Your task to perform on an android device: turn on translation in the chrome app Image 0: 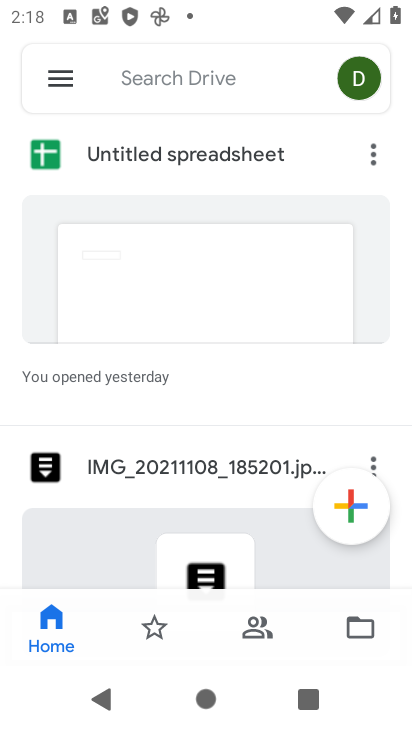
Step 0: press home button
Your task to perform on an android device: turn on translation in the chrome app Image 1: 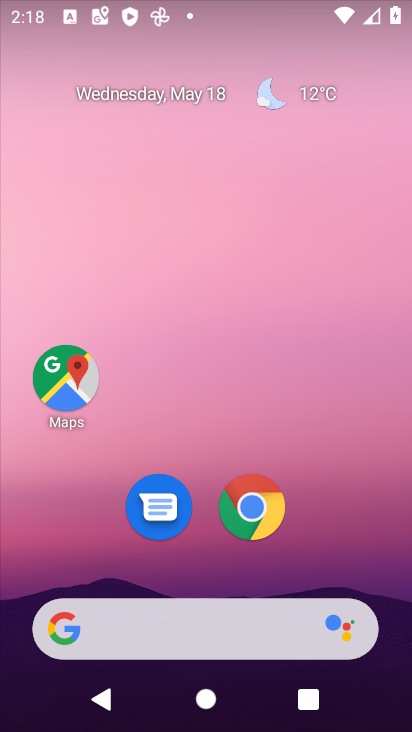
Step 1: click (253, 508)
Your task to perform on an android device: turn on translation in the chrome app Image 2: 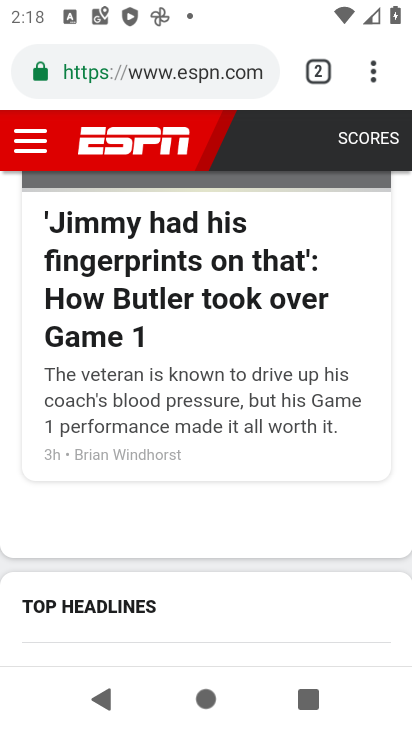
Step 2: click (370, 79)
Your task to perform on an android device: turn on translation in the chrome app Image 3: 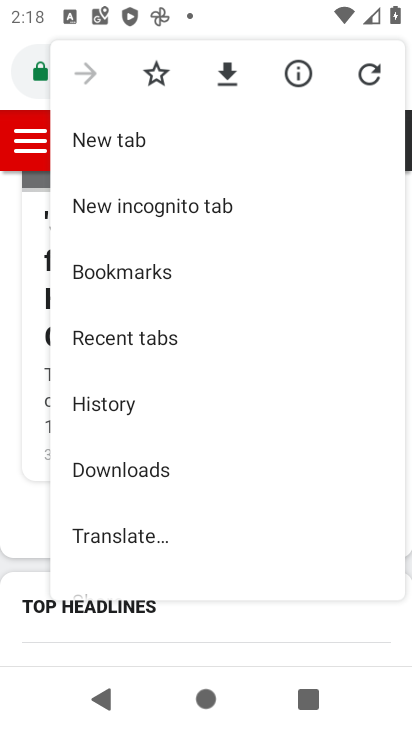
Step 3: drag from (235, 548) to (263, 210)
Your task to perform on an android device: turn on translation in the chrome app Image 4: 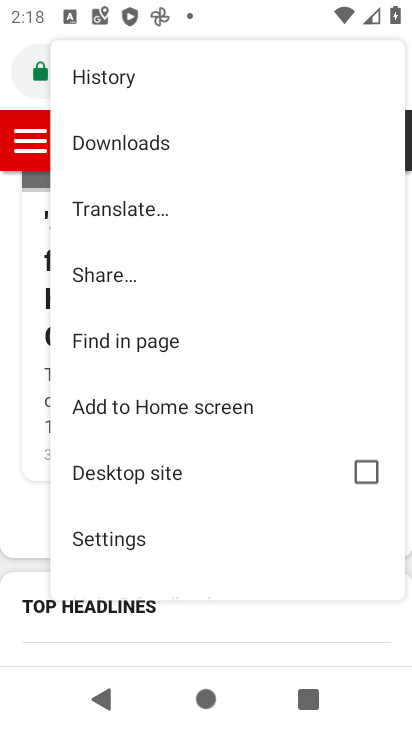
Step 4: drag from (205, 534) to (260, 252)
Your task to perform on an android device: turn on translation in the chrome app Image 5: 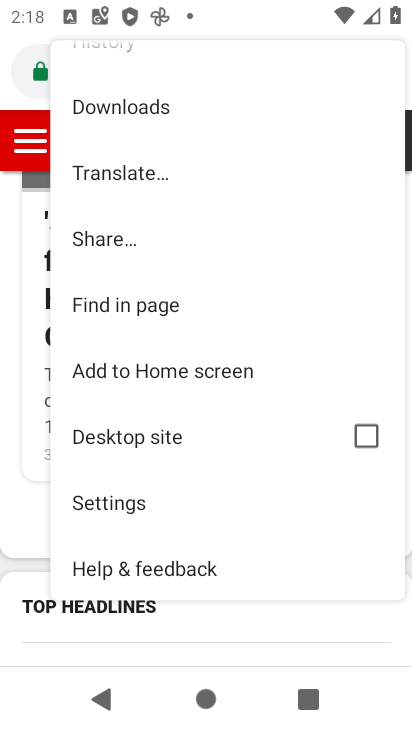
Step 5: click (101, 508)
Your task to perform on an android device: turn on translation in the chrome app Image 6: 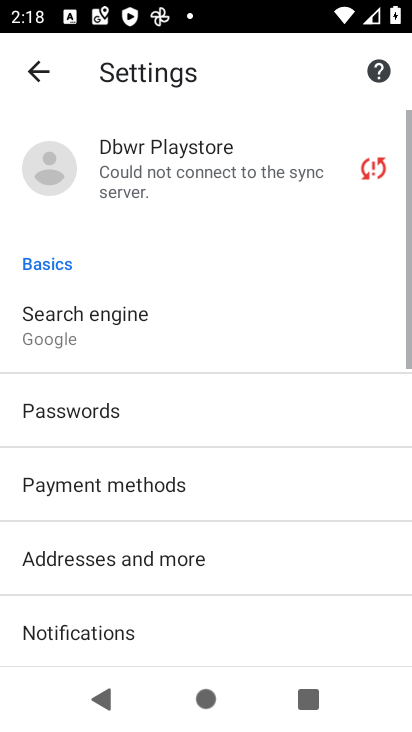
Step 6: drag from (225, 653) to (235, 88)
Your task to perform on an android device: turn on translation in the chrome app Image 7: 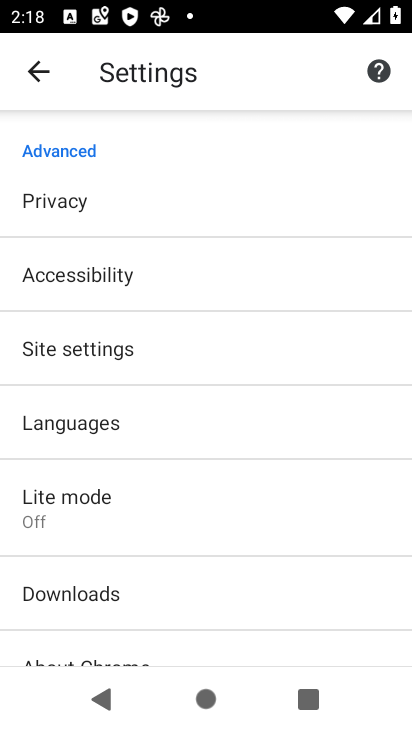
Step 7: click (62, 437)
Your task to perform on an android device: turn on translation in the chrome app Image 8: 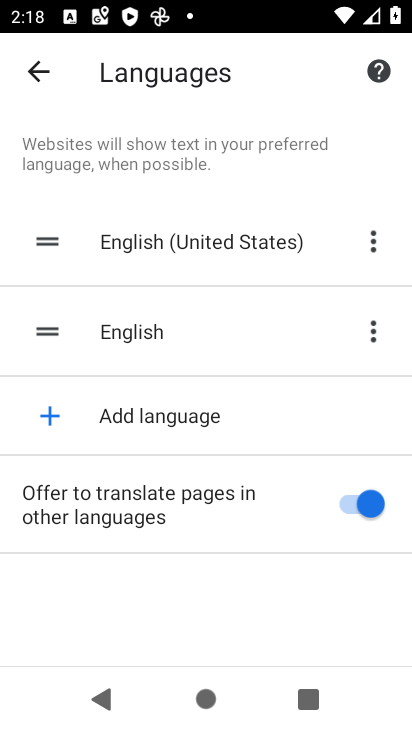
Step 8: task complete